Your task to perform on an android device: Go to network settings Image 0: 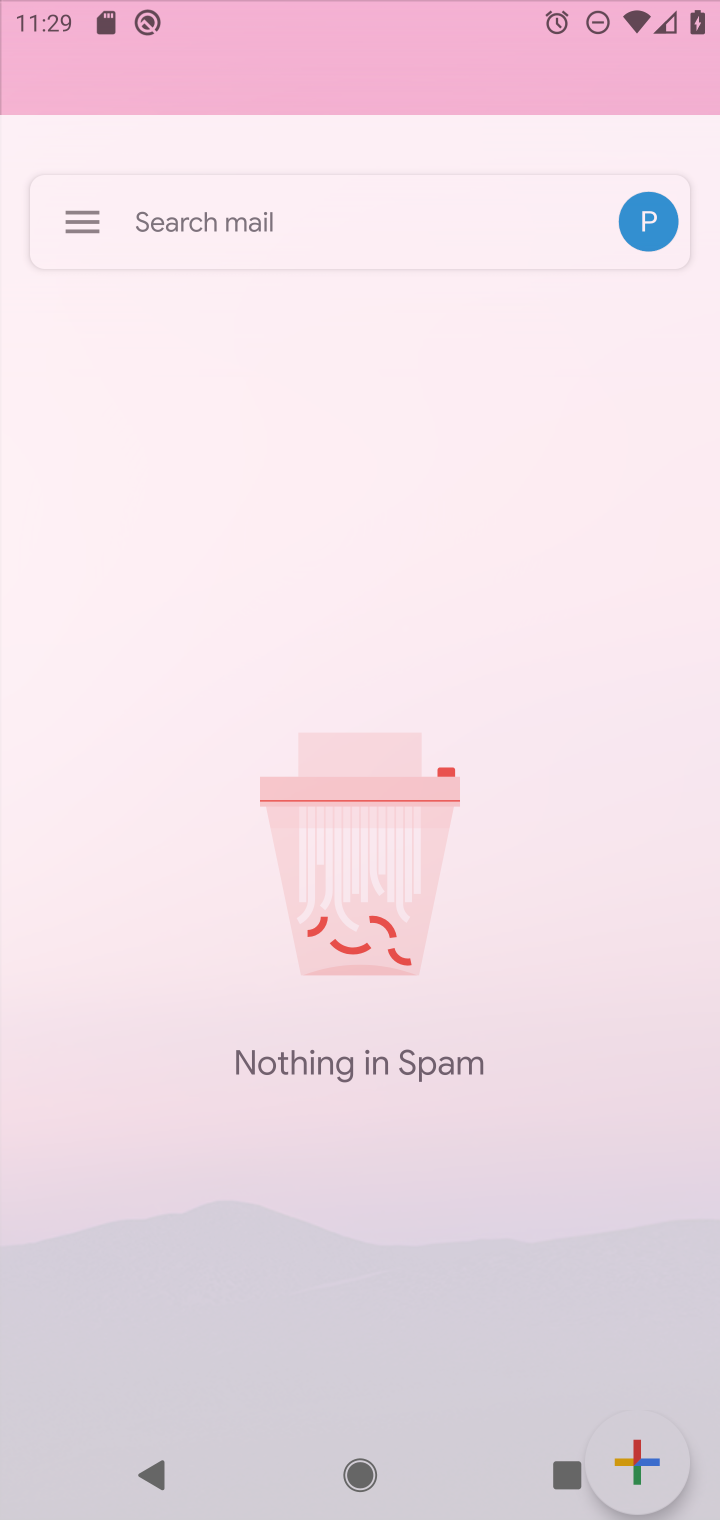
Step 0: press home button
Your task to perform on an android device: Go to network settings Image 1: 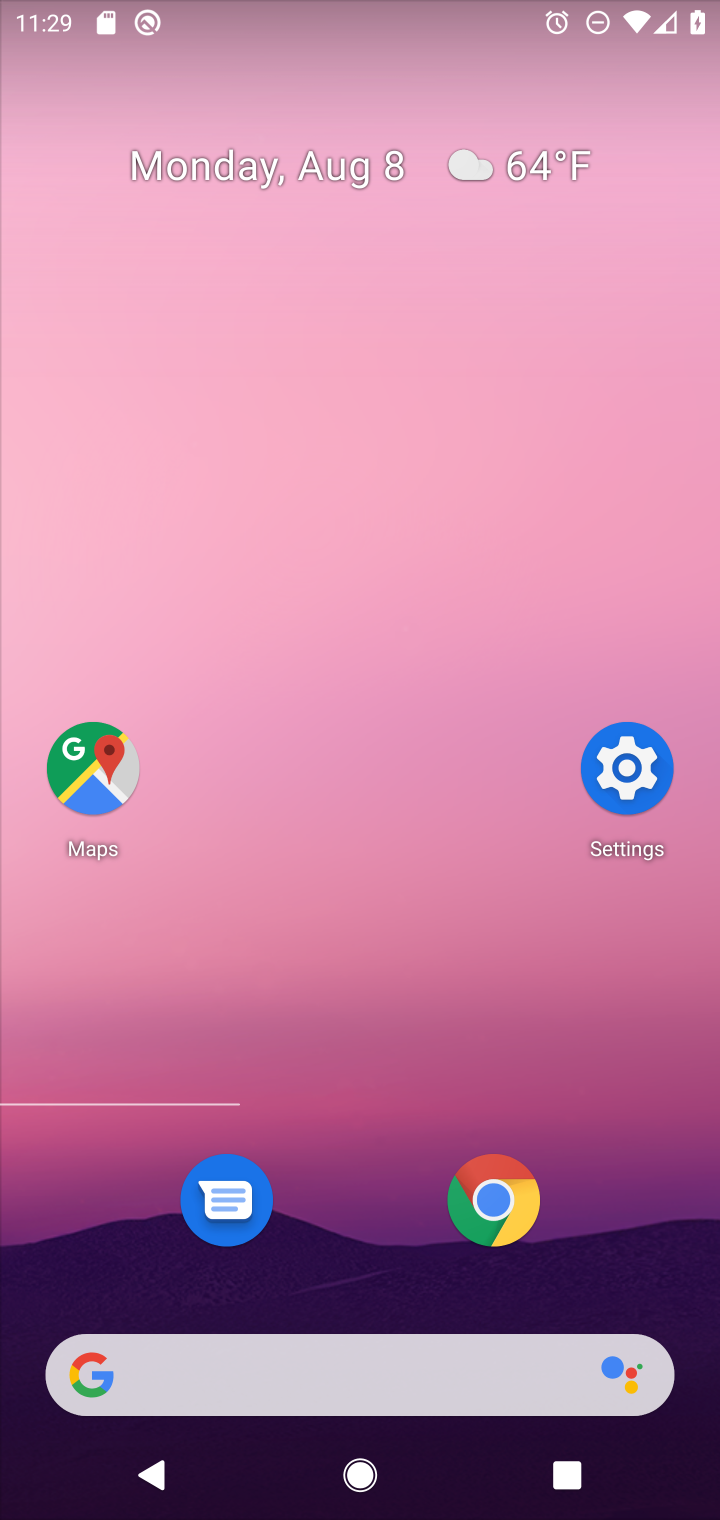
Step 1: click (630, 766)
Your task to perform on an android device: Go to network settings Image 2: 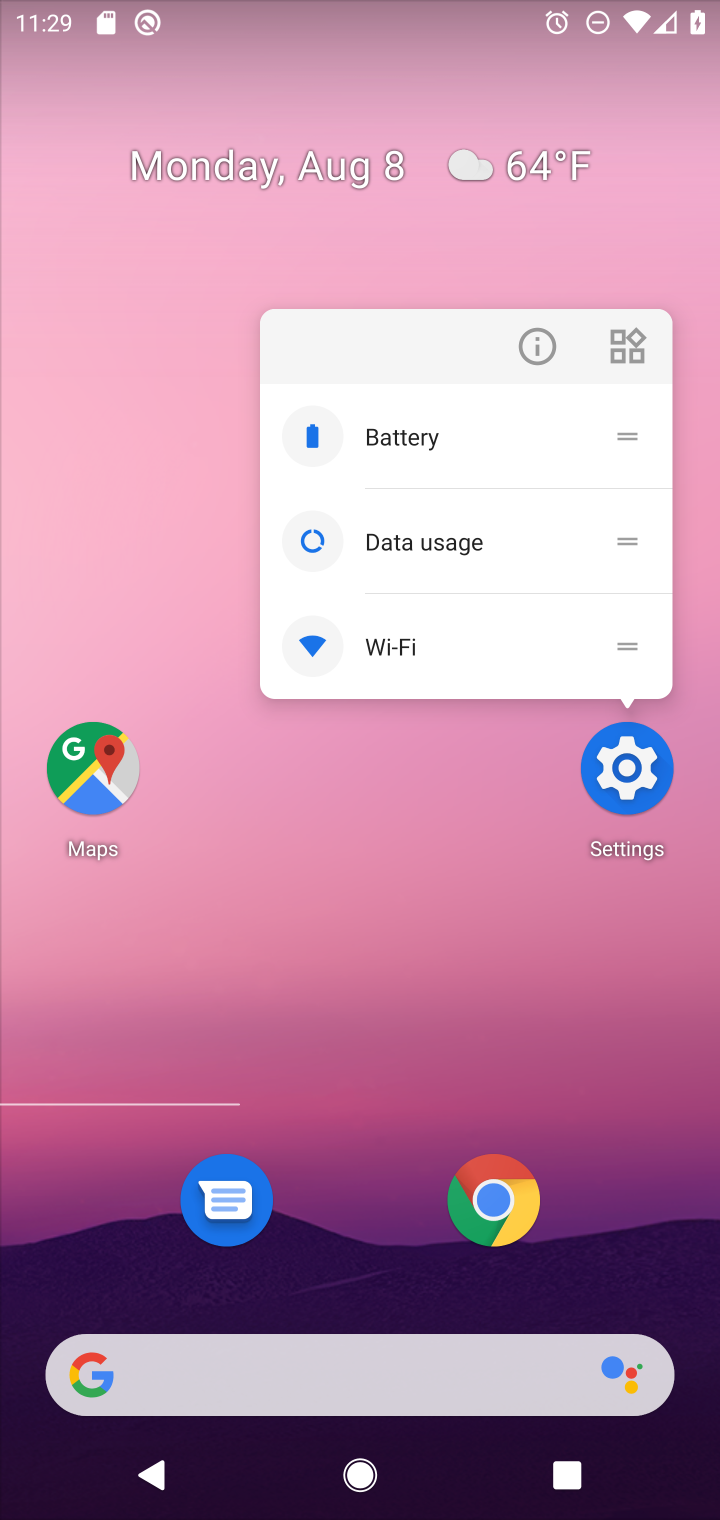
Step 2: click (630, 764)
Your task to perform on an android device: Go to network settings Image 3: 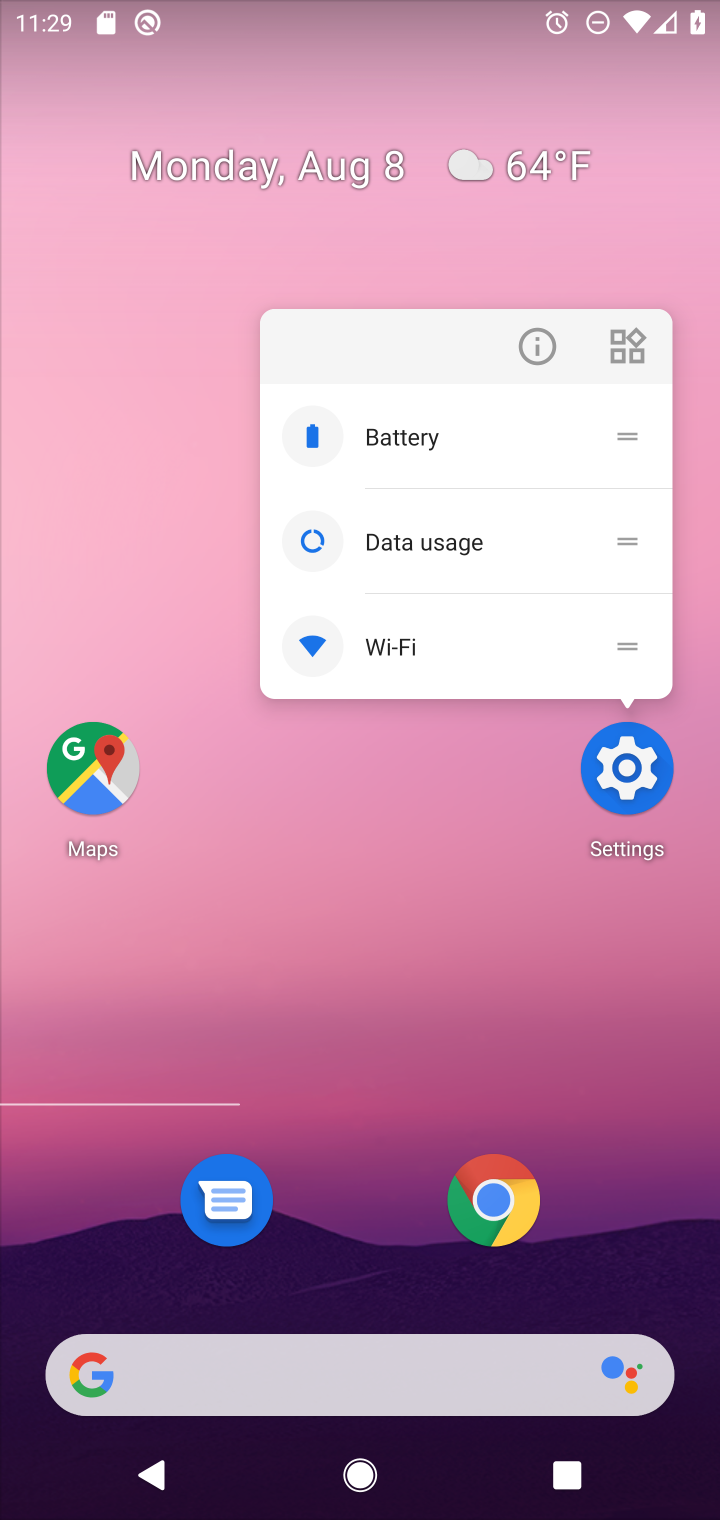
Step 3: click (612, 750)
Your task to perform on an android device: Go to network settings Image 4: 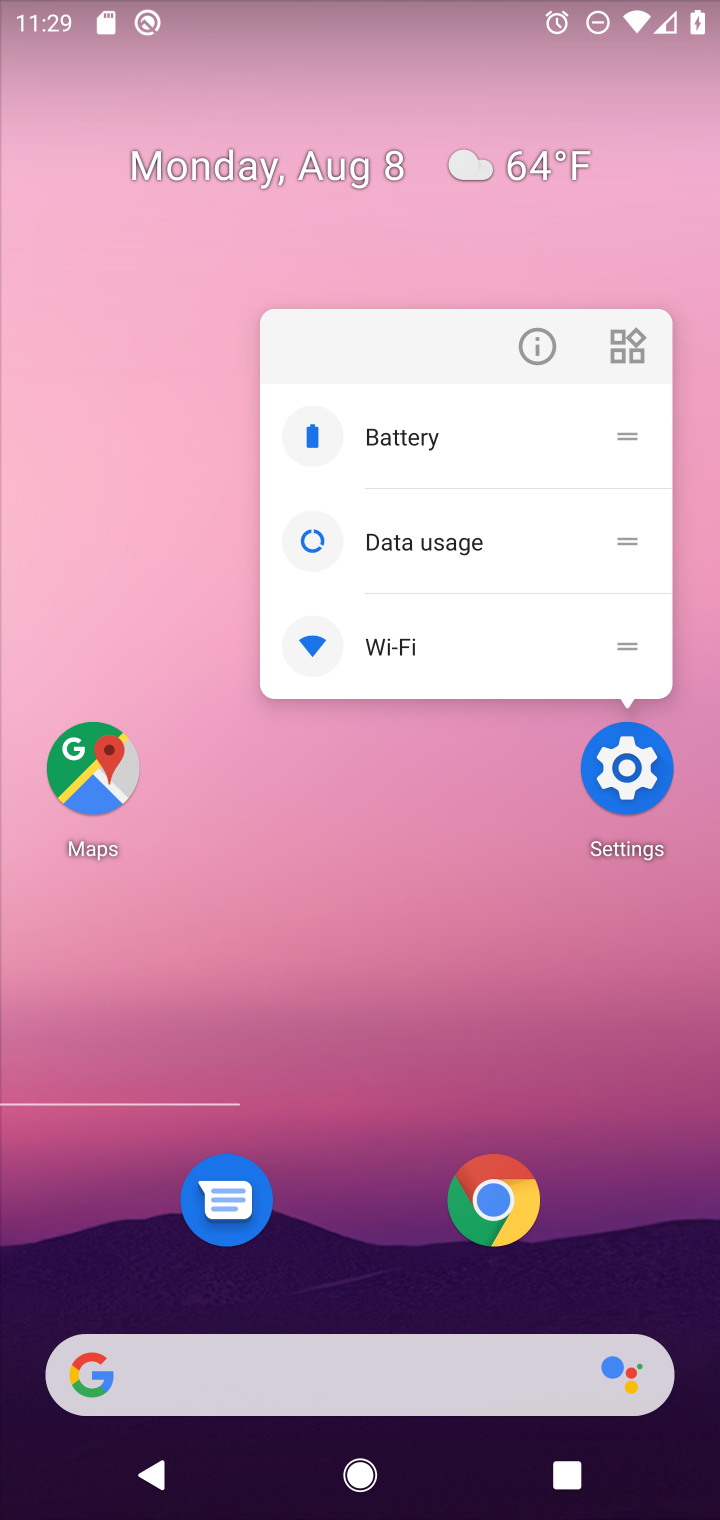
Step 4: click (612, 753)
Your task to perform on an android device: Go to network settings Image 5: 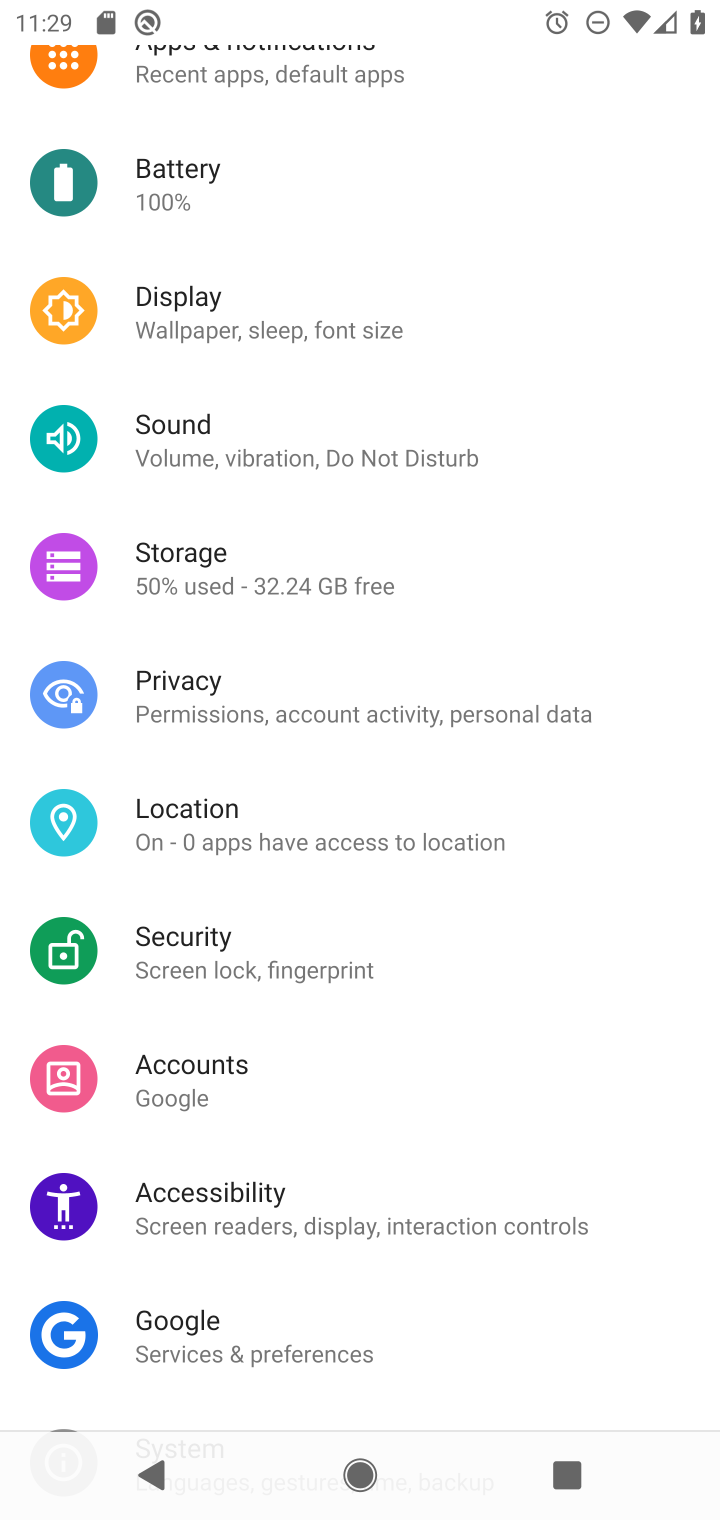
Step 5: drag from (621, 189) to (349, 1247)
Your task to perform on an android device: Go to network settings Image 6: 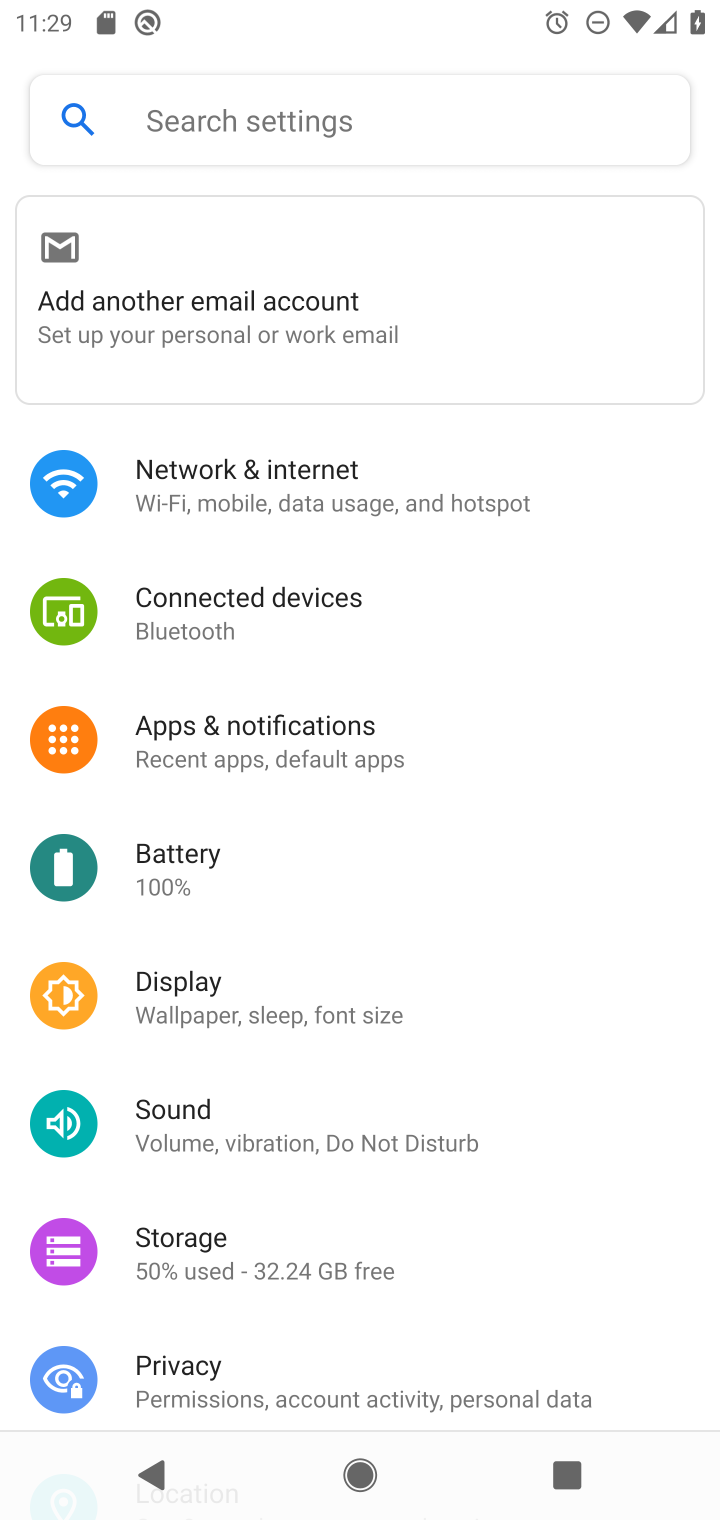
Step 6: click (287, 462)
Your task to perform on an android device: Go to network settings Image 7: 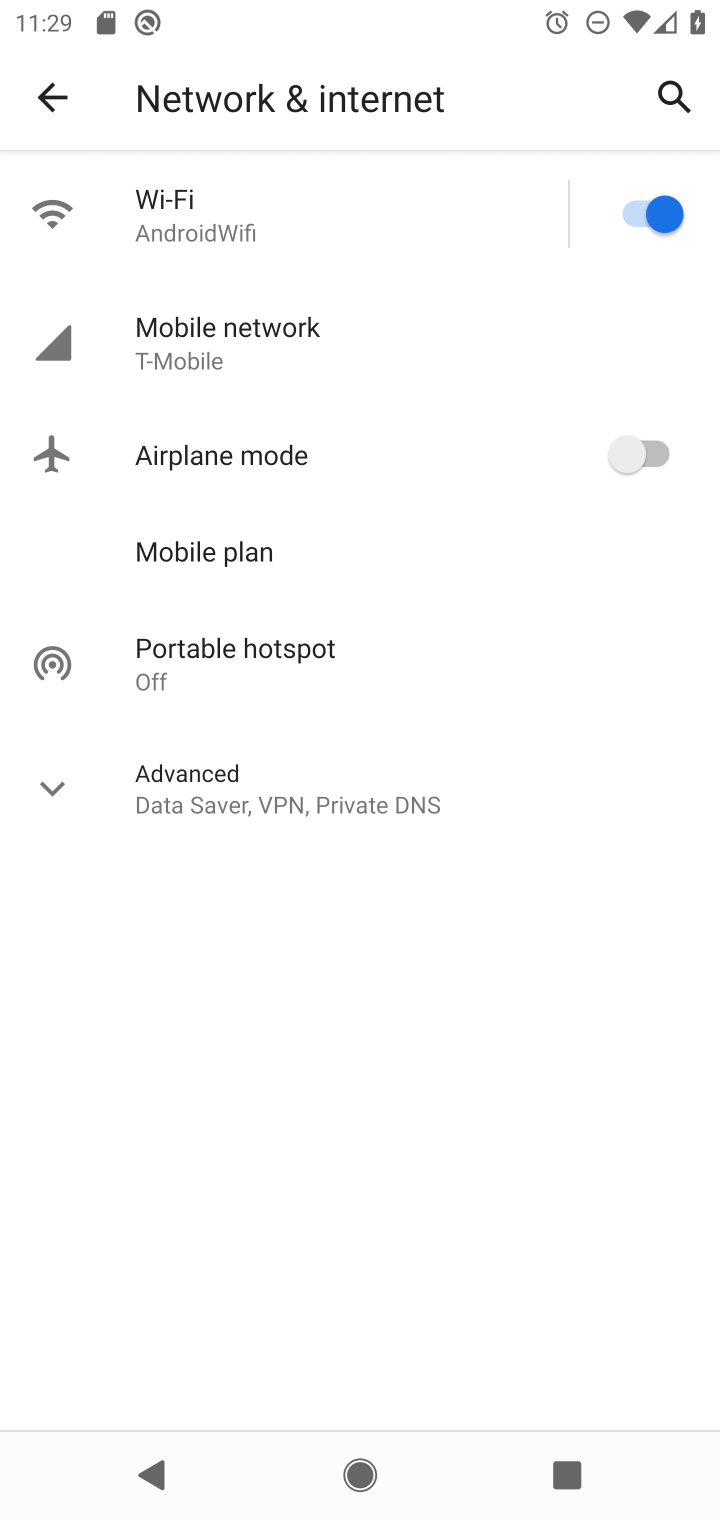
Step 7: task complete